Your task to perform on an android device: Go to Wikipedia Image 0: 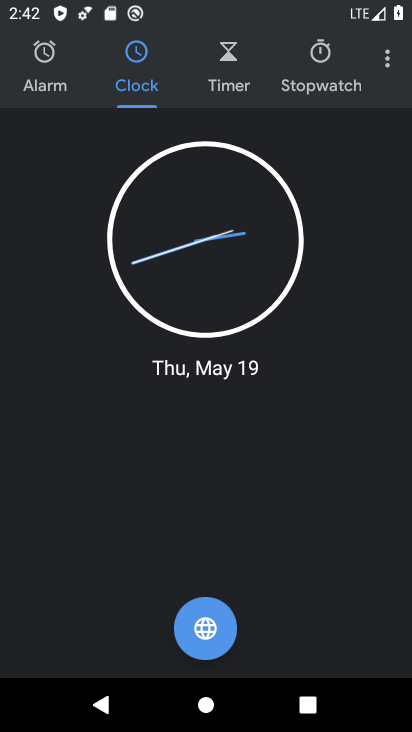
Step 0: press home button
Your task to perform on an android device: Go to Wikipedia Image 1: 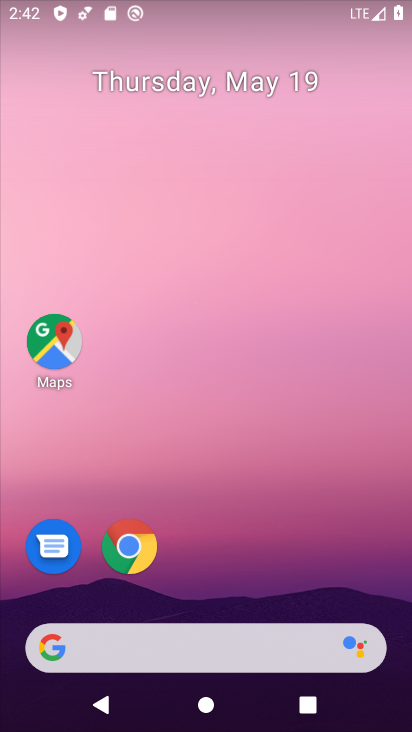
Step 1: click (136, 547)
Your task to perform on an android device: Go to Wikipedia Image 2: 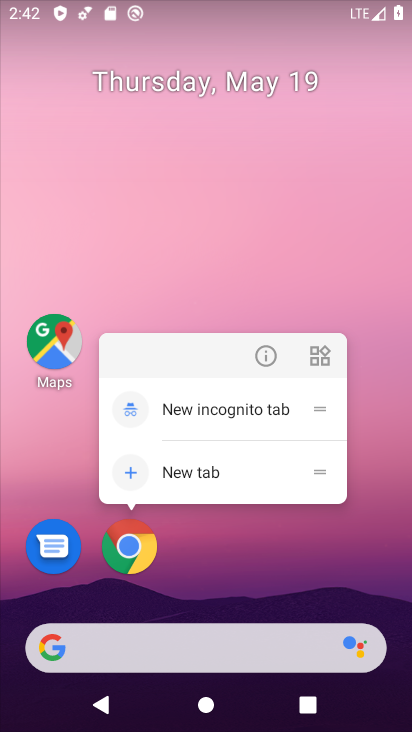
Step 2: click (121, 551)
Your task to perform on an android device: Go to Wikipedia Image 3: 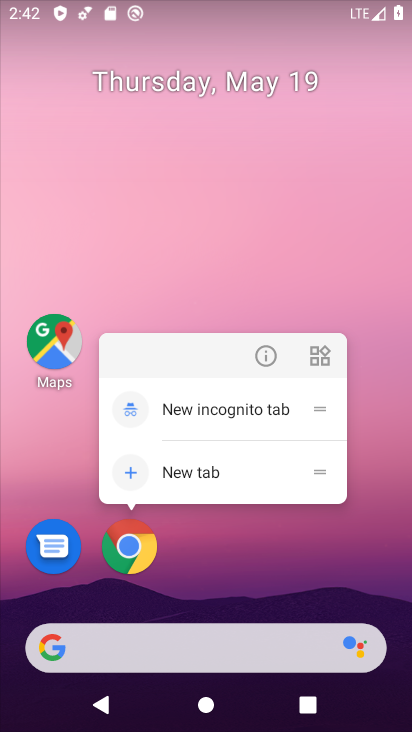
Step 3: click (136, 550)
Your task to perform on an android device: Go to Wikipedia Image 4: 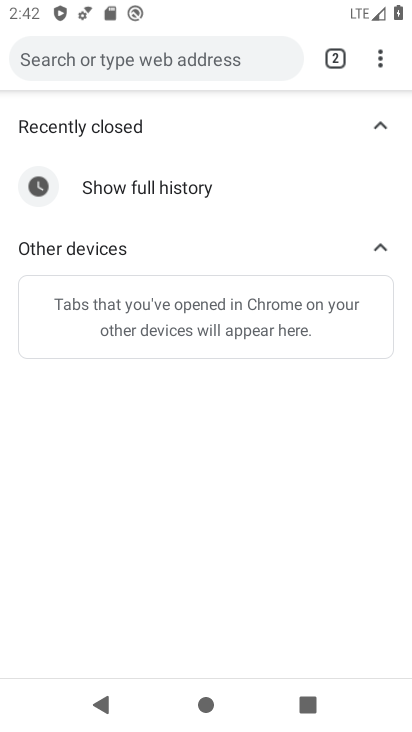
Step 4: drag from (381, 64) to (276, 123)
Your task to perform on an android device: Go to Wikipedia Image 5: 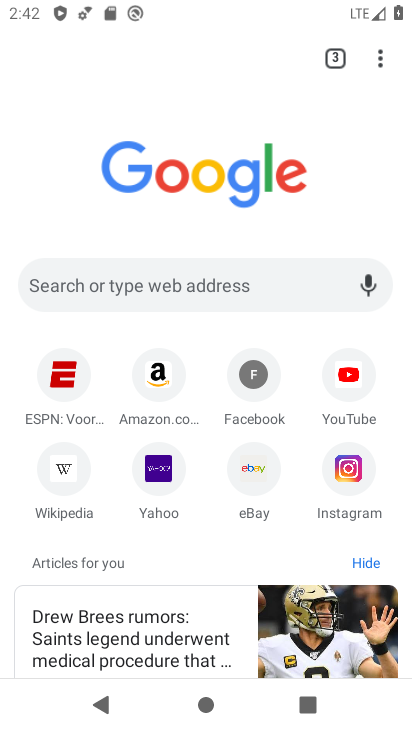
Step 5: click (68, 479)
Your task to perform on an android device: Go to Wikipedia Image 6: 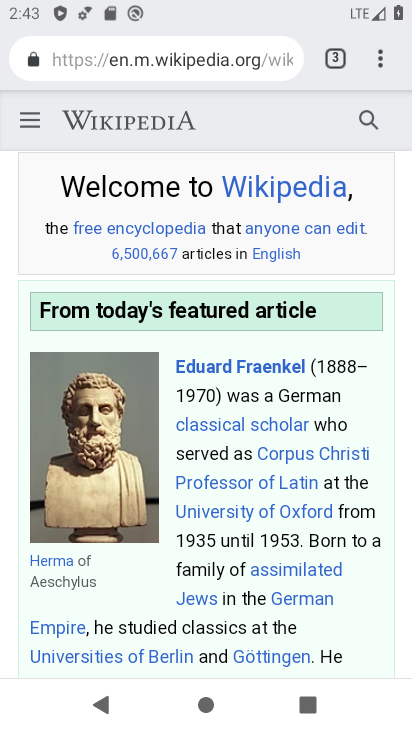
Step 6: task complete